Your task to perform on an android device: Open Yahoo.com Image 0: 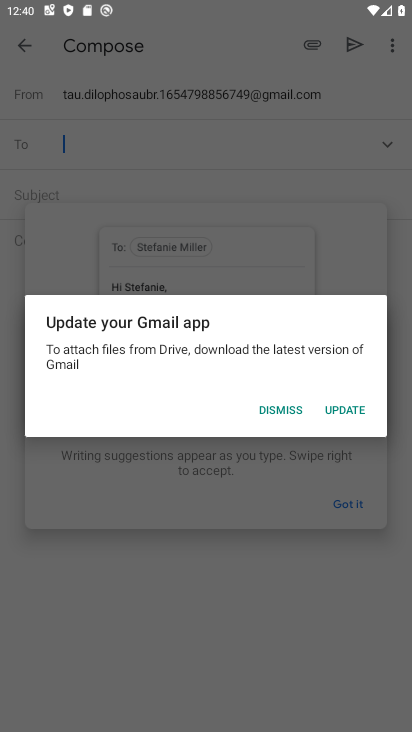
Step 0: press home button
Your task to perform on an android device: Open Yahoo.com Image 1: 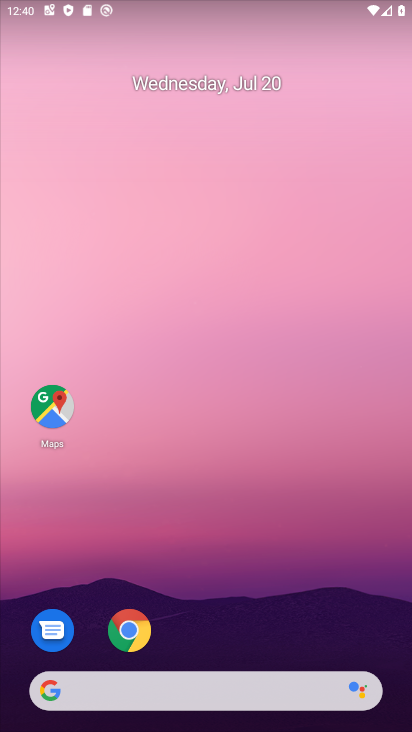
Step 1: click (58, 687)
Your task to perform on an android device: Open Yahoo.com Image 2: 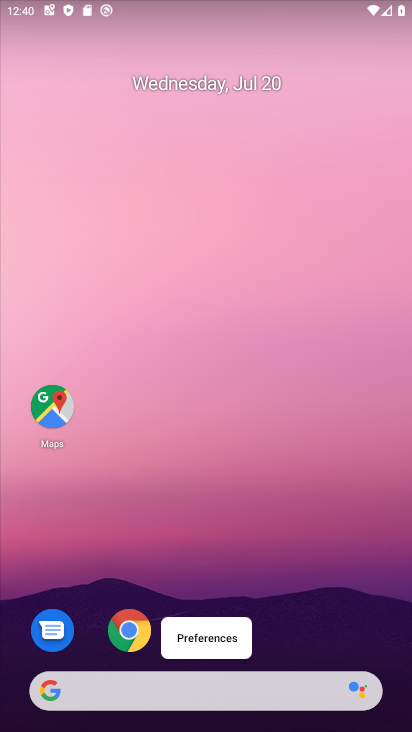
Step 2: click (51, 696)
Your task to perform on an android device: Open Yahoo.com Image 3: 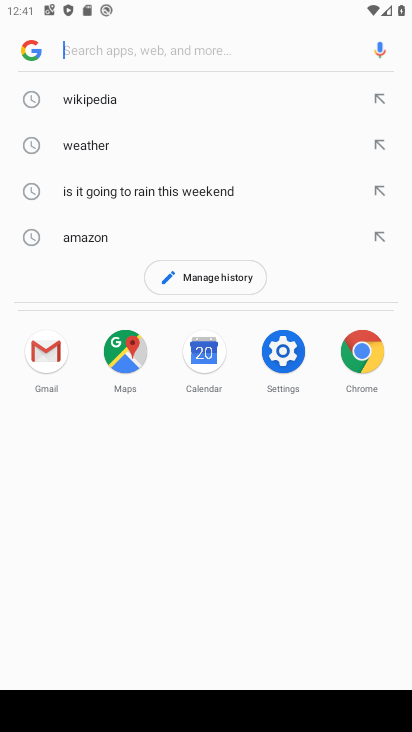
Step 3: type "Yahoo.com"
Your task to perform on an android device: Open Yahoo.com Image 4: 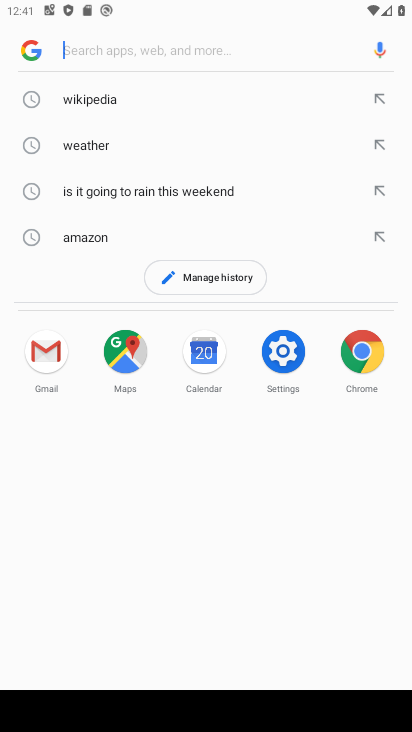
Step 4: click (72, 55)
Your task to perform on an android device: Open Yahoo.com Image 5: 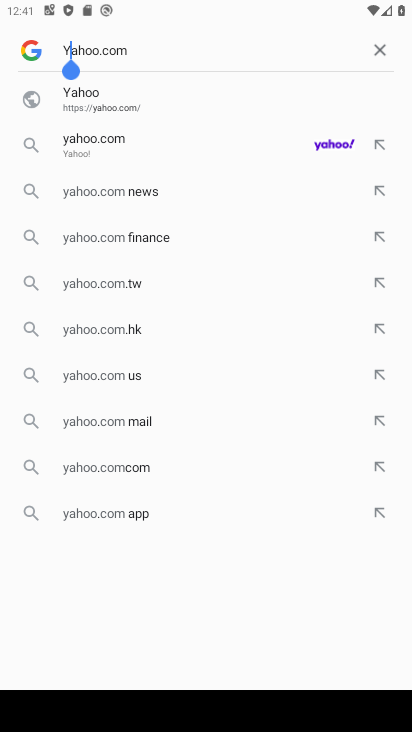
Step 5: press enter
Your task to perform on an android device: Open Yahoo.com Image 6: 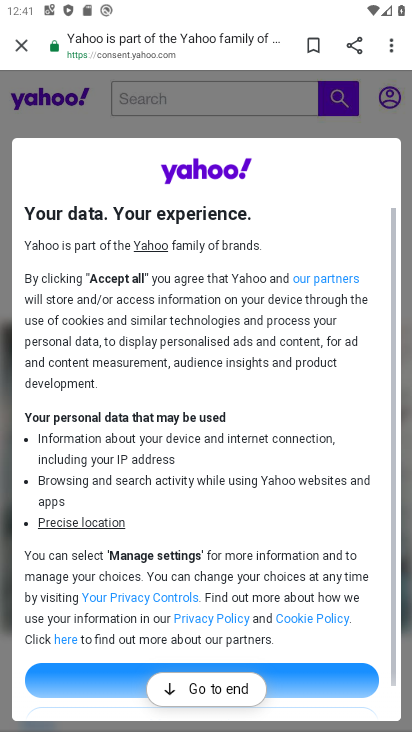
Step 6: click (247, 689)
Your task to perform on an android device: Open Yahoo.com Image 7: 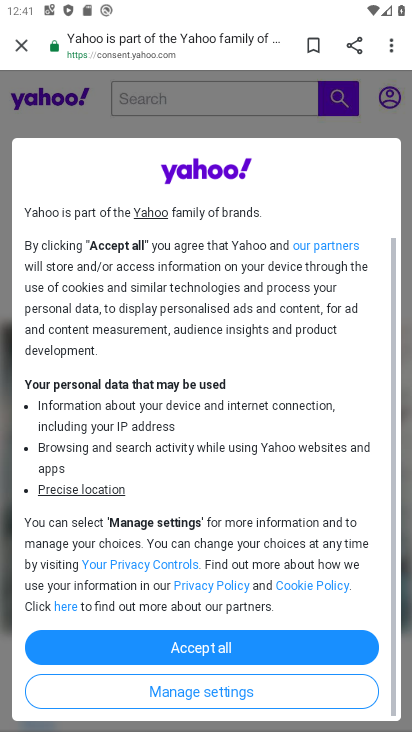
Step 7: click (223, 646)
Your task to perform on an android device: Open Yahoo.com Image 8: 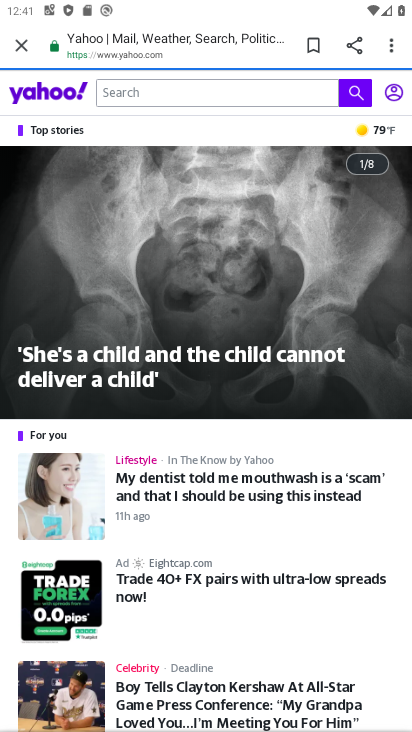
Step 8: task complete